Your task to perform on an android device: turn notification dots off Image 0: 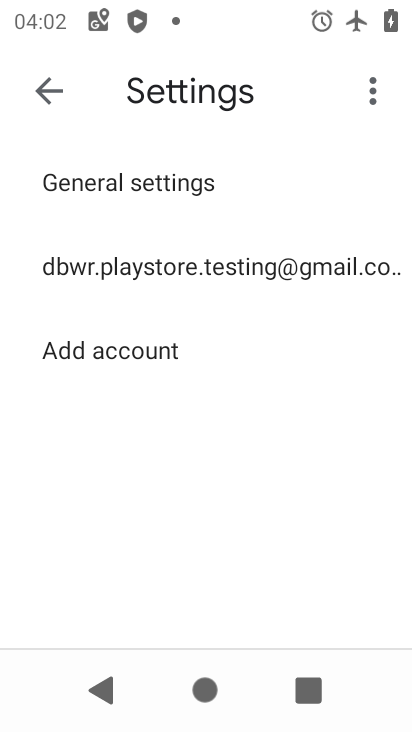
Step 0: press home button
Your task to perform on an android device: turn notification dots off Image 1: 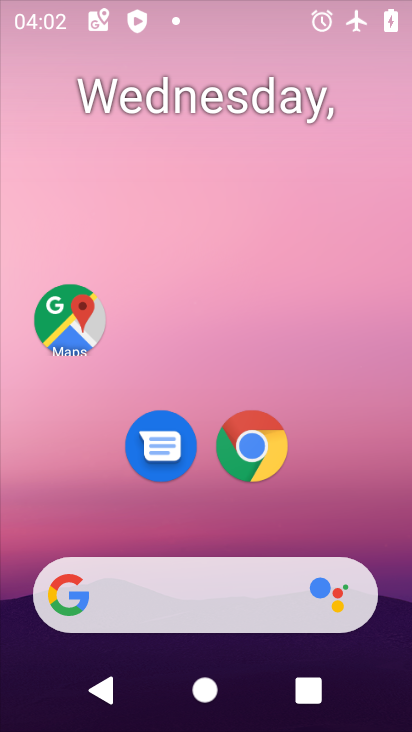
Step 1: drag from (255, 539) to (260, 217)
Your task to perform on an android device: turn notification dots off Image 2: 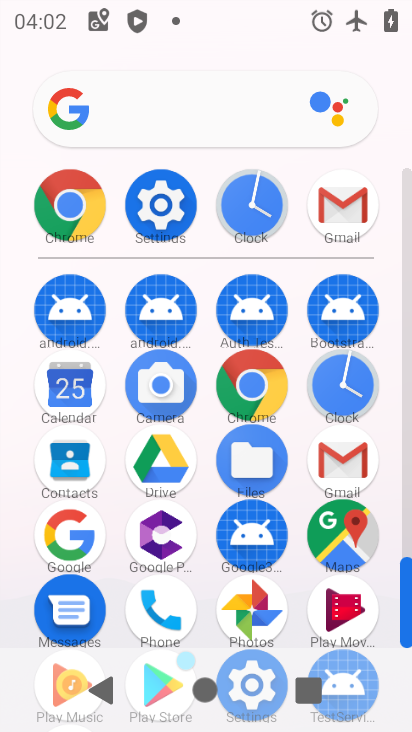
Step 2: click (162, 201)
Your task to perform on an android device: turn notification dots off Image 3: 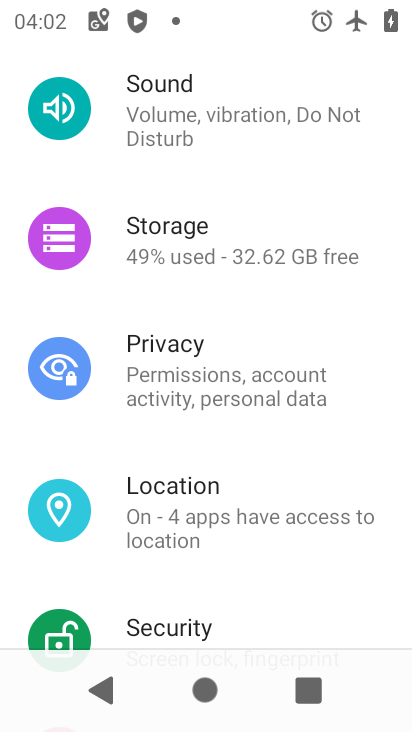
Step 3: drag from (209, 201) to (248, 566)
Your task to perform on an android device: turn notification dots off Image 4: 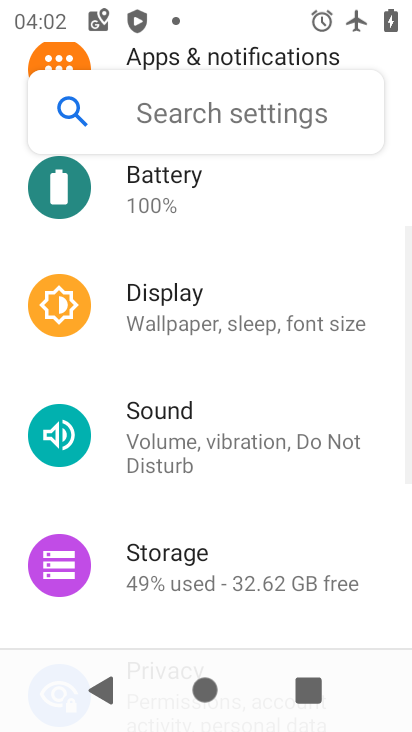
Step 4: drag from (185, 218) to (198, 480)
Your task to perform on an android device: turn notification dots off Image 5: 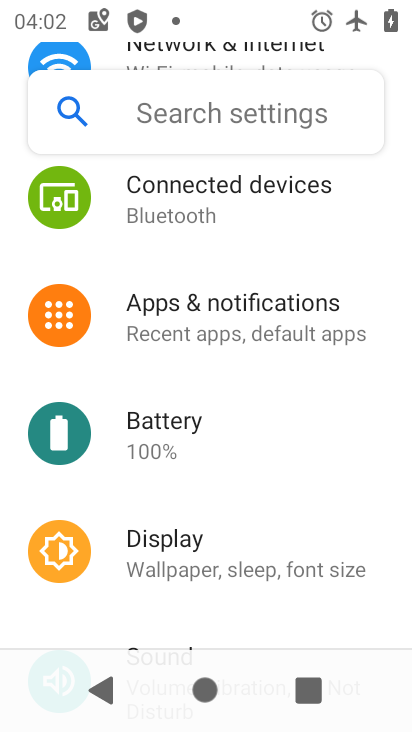
Step 5: click (223, 338)
Your task to perform on an android device: turn notification dots off Image 6: 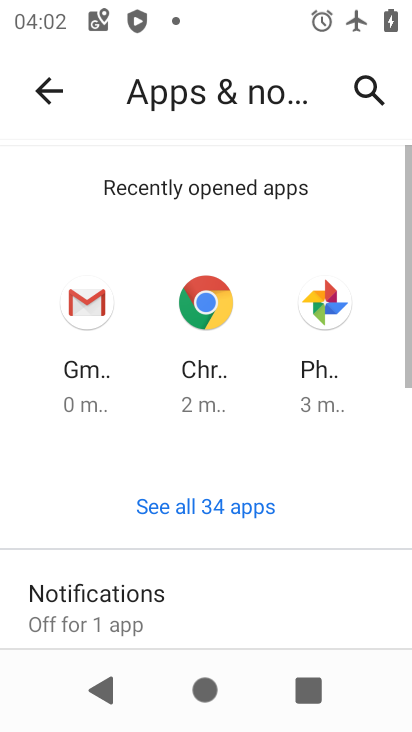
Step 6: drag from (236, 567) to (238, 302)
Your task to perform on an android device: turn notification dots off Image 7: 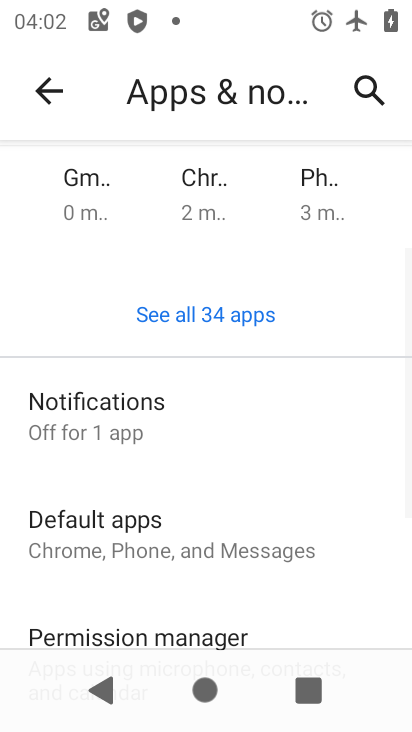
Step 7: click (238, 388)
Your task to perform on an android device: turn notification dots off Image 8: 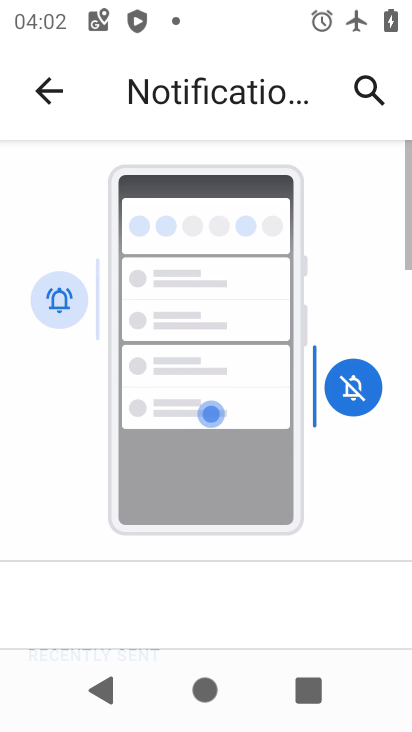
Step 8: drag from (242, 534) to (227, 215)
Your task to perform on an android device: turn notification dots off Image 9: 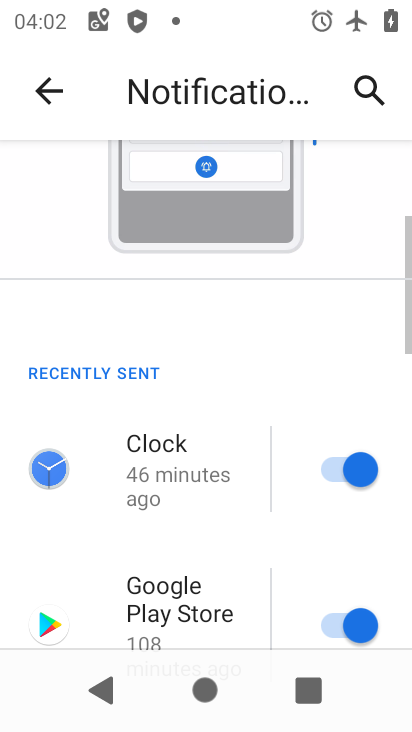
Step 9: drag from (226, 539) to (226, 273)
Your task to perform on an android device: turn notification dots off Image 10: 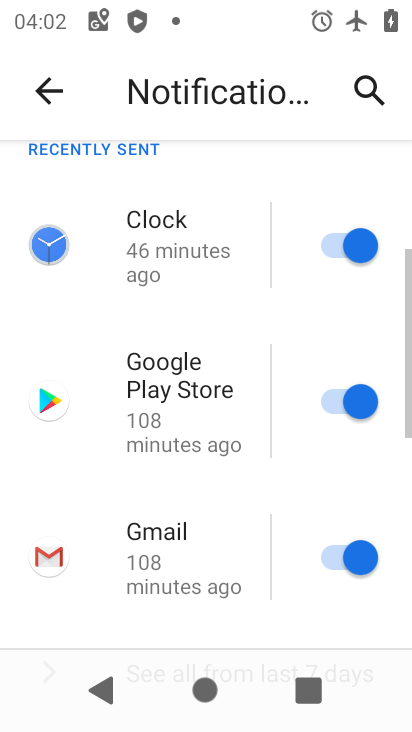
Step 10: drag from (241, 491) to (245, 230)
Your task to perform on an android device: turn notification dots off Image 11: 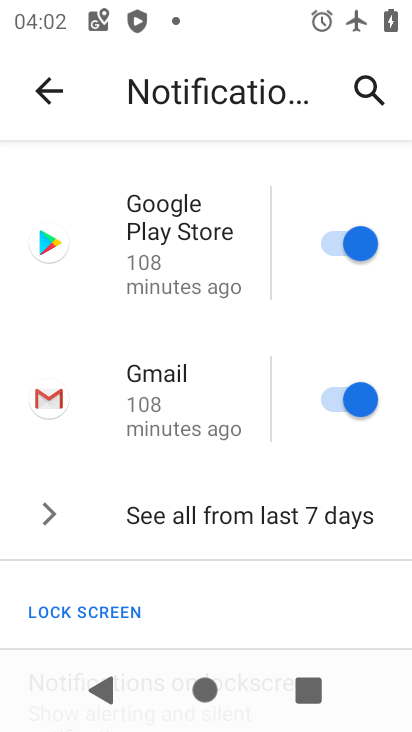
Step 11: drag from (233, 558) to (227, 238)
Your task to perform on an android device: turn notification dots off Image 12: 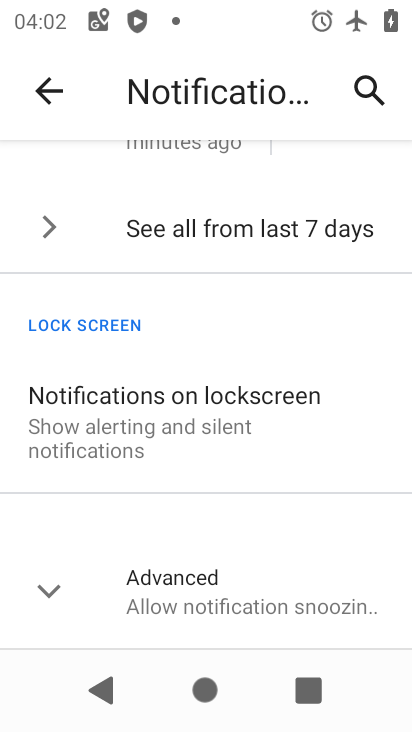
Step 12: click (240, 593)
Your task to perform on an android device: turn notification dots off Image 13: 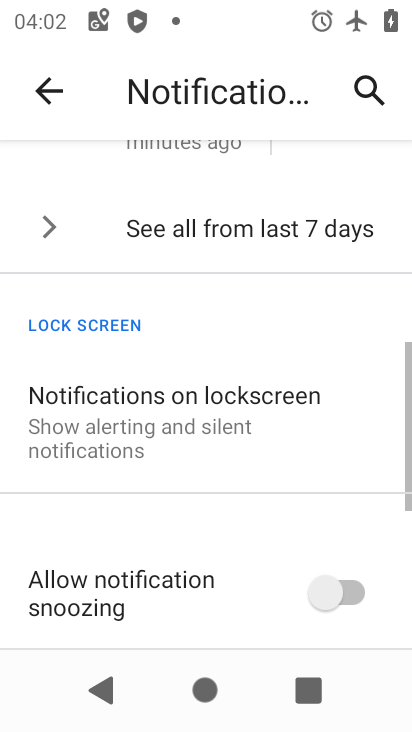
Step 13: drag from (243, 592) to (249, 302)
Your task to perform on an android device: turn notification dots off Image 14: 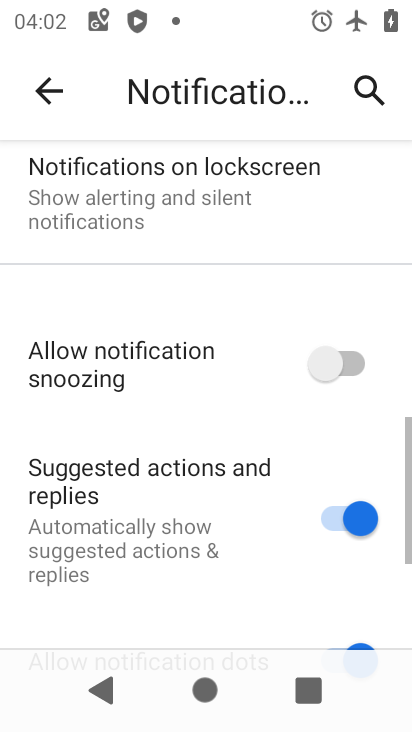
Step 14: drag from (249, 559) to (237, 322)
Your task to perform on an android device: turn notification dots off Image 15: 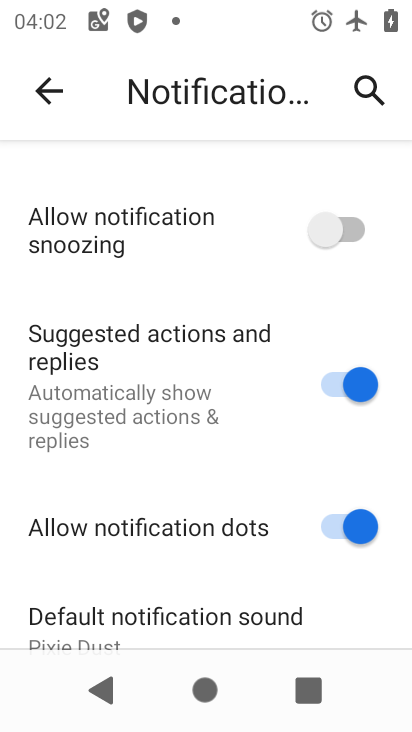
Step 15: click (321, 526)
Your task to perform on an android device: turn notification dots off Image 16: 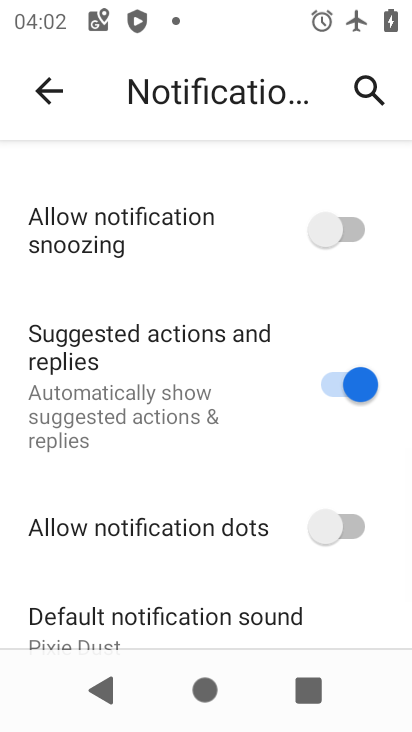
Step 16: task complete